Your task to perform on an android device: Open Google Maps and go to "Timeline" Image 0: 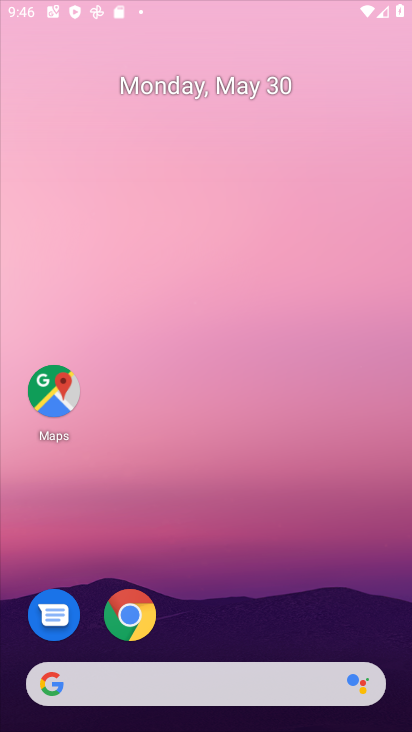
Step 0: drag from (319, 570) to (295, 30)
Your task to perform on an android device: Open Google Maps and go to "Timeline" Image 1: 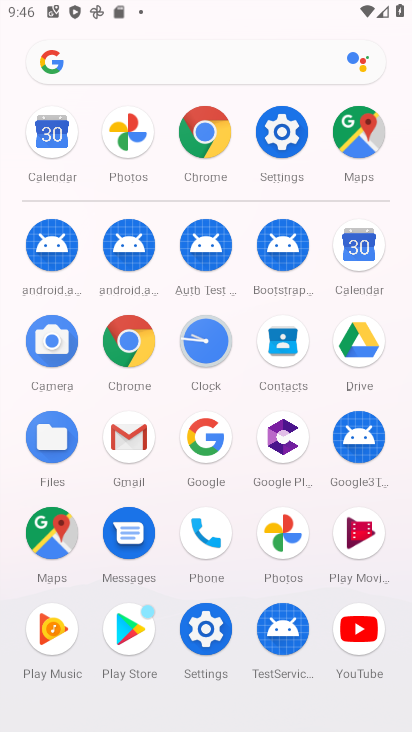
Step 1: click (51, 528)
Your task to perform on an android device: Open Google Maps and go to "Timeline" Image 2: 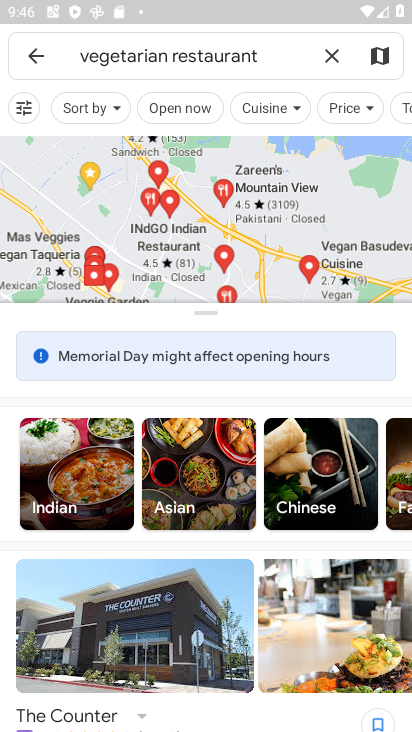
Step 2: click (330, 54)
Your task to perform on an android device: Open Google Maps and go to "Timeline" Image 3: 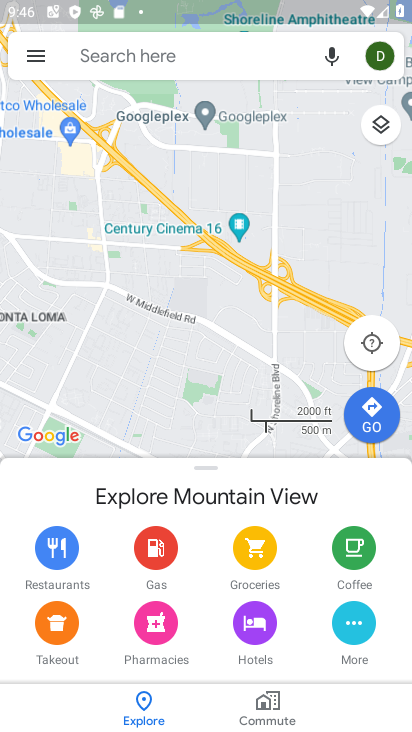
Step 3: click (38, 55)
Your task to perform on an android device: Open Google Maps and go to "Timeline" Image 4: 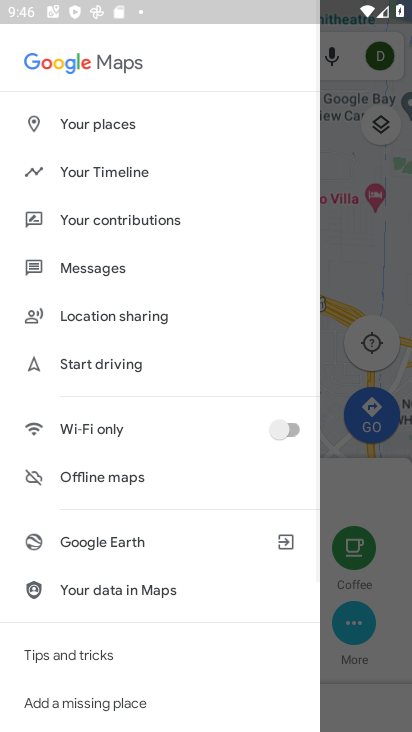
Step 4: click (139, 163)
Your task to perform on an android device: Open Google Maps and go to "Timeline" Image 5: 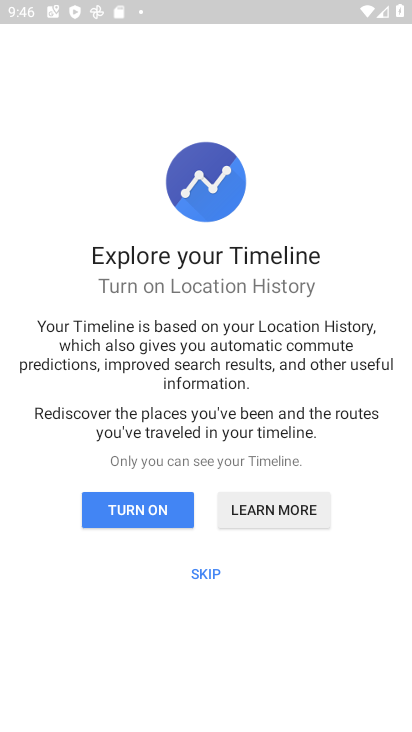
Step 5: click (132, 508)
Your task to perform on an android device: Open Google Maps and go to "Timeline" Image 6: 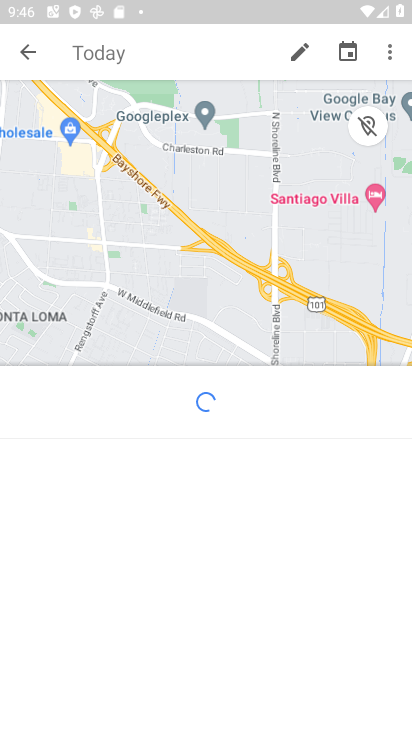
Step 6: task complete